Your task to perform on an android device: Go to sound settings Image 0: 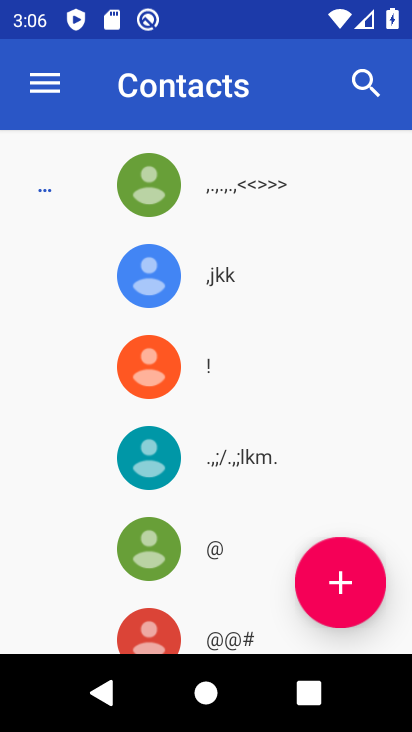
Step 0: press home button
Your task to perform on an android device: Go to sound settings Image 1: 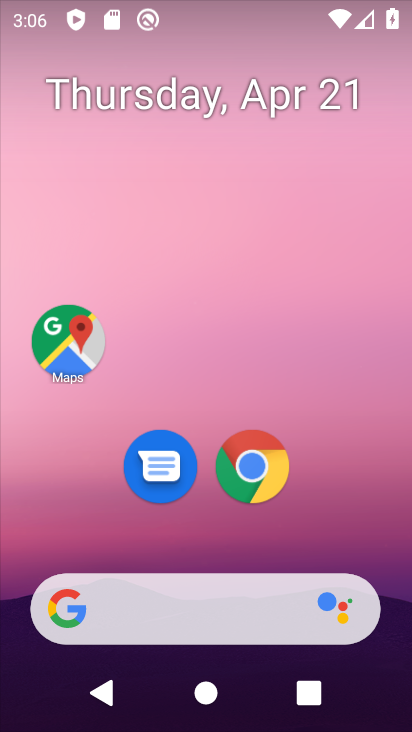
Step 1: drag from (204, 499) to (207, 89)
Your task to perform on an android device: Go to sound settings Image 2: 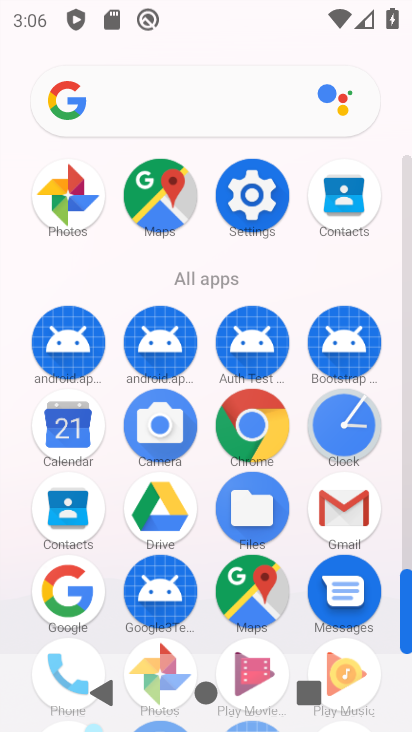
Step 2: drag from (208, 530) to (216, 157)
Your task to perform on an android device: Go to sound settings Image 3: 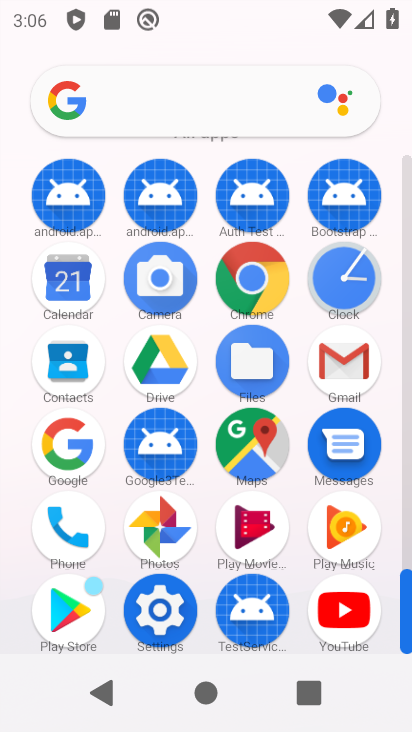
Step 3: click (166, 583)
Your task to perform on an android device: Go to sound settings Image 4: 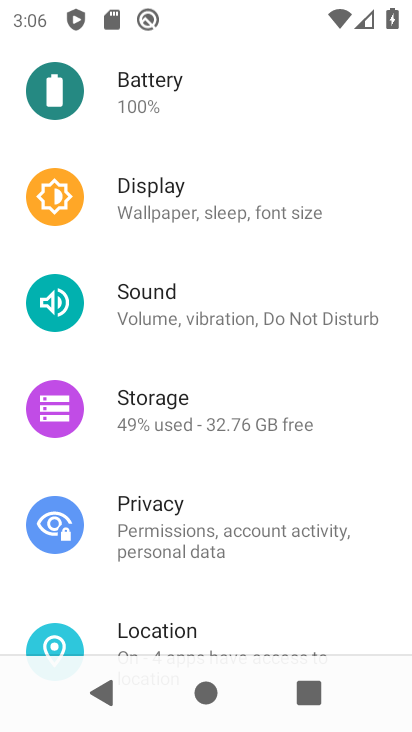
Step 4: drag from (244, 614) to (246, 572)
Your task to perform on an android device: Go to sound settings Image 5: 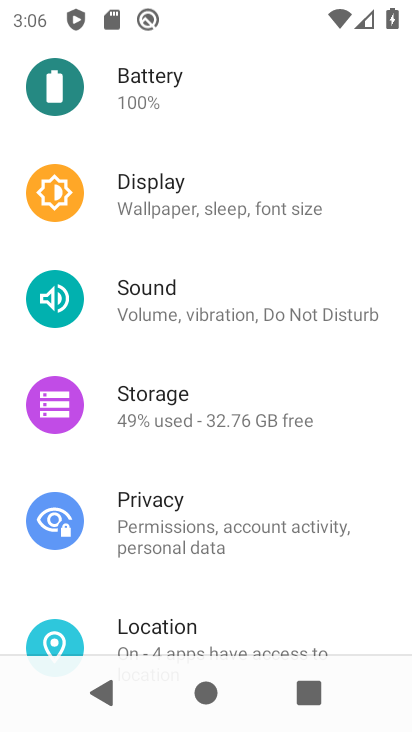
Step 5: click (175, 318)
Your task to perform on an android device: Go to sound settings Image 6: 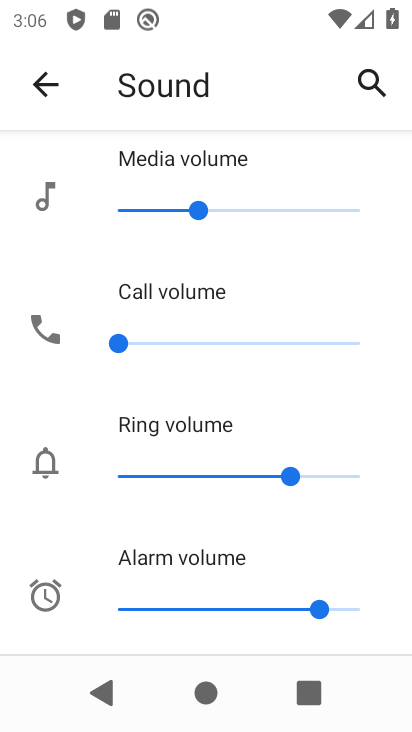
Step 6: task complete